Your task to perform on an android device: check google app version Image 0: 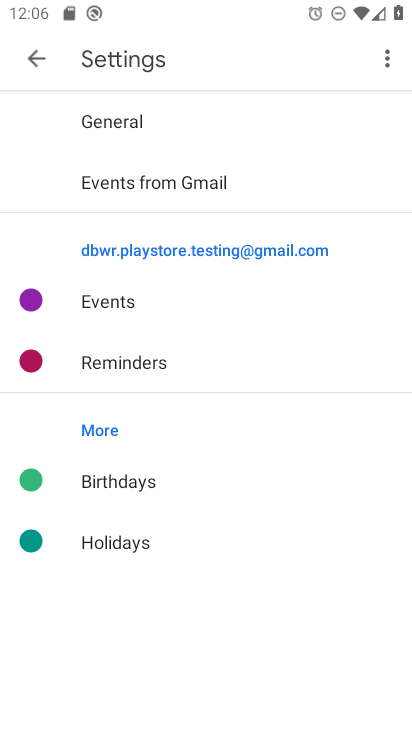
Step 0: press home button
Your task to perform on an android device: check google app version Image 1: 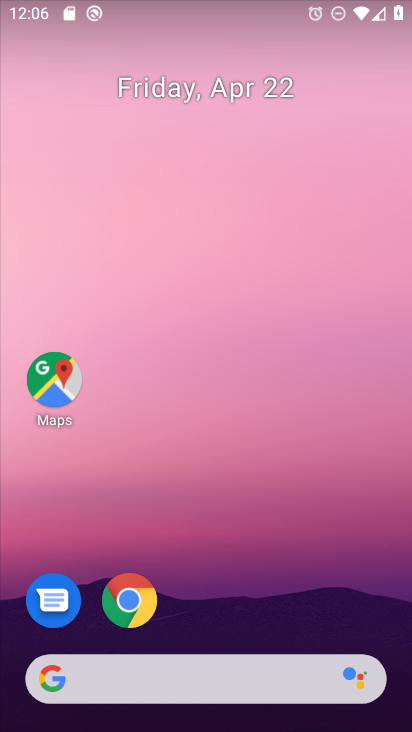
Step 1: drag from (225, 603) to (206, 39)
Your task to perform on an android device: check google app version Image 2: 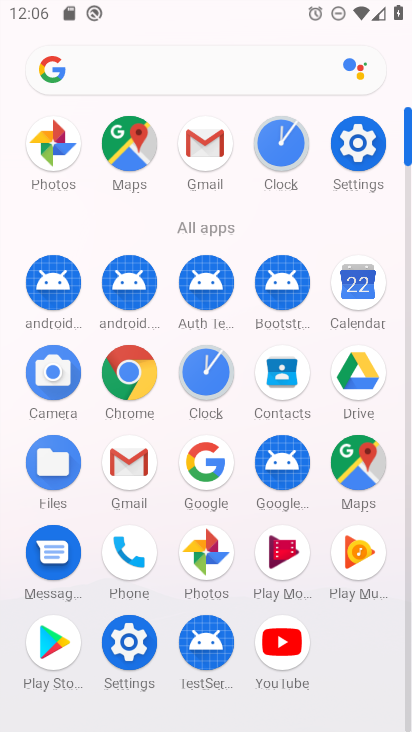
Step 2: click (214, 462)
Your task to perform on an android device: check google app version Image 3: 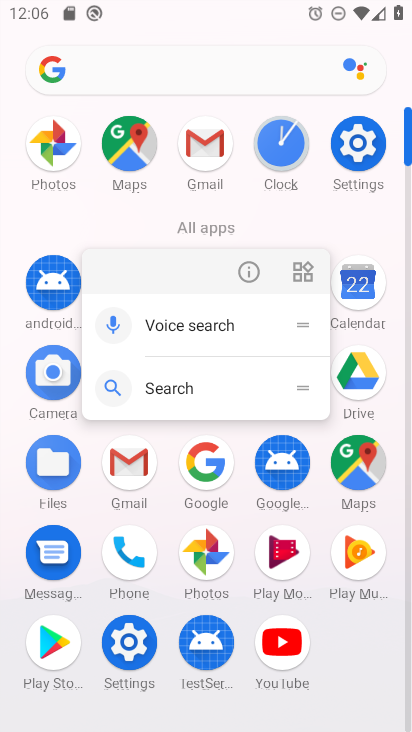
Step 3: click (248, 272)
Your task to perform on an android device: check google app version Image 4: 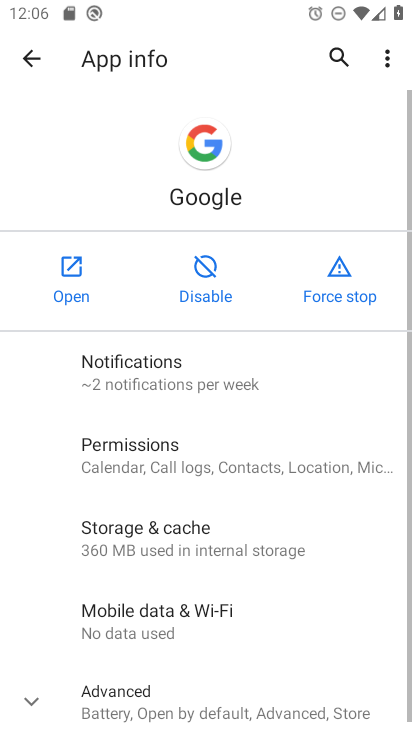
Step 4: drag from (209, 500) to (229, 372)
Your task to perform on an android device: check google app version Image 5: 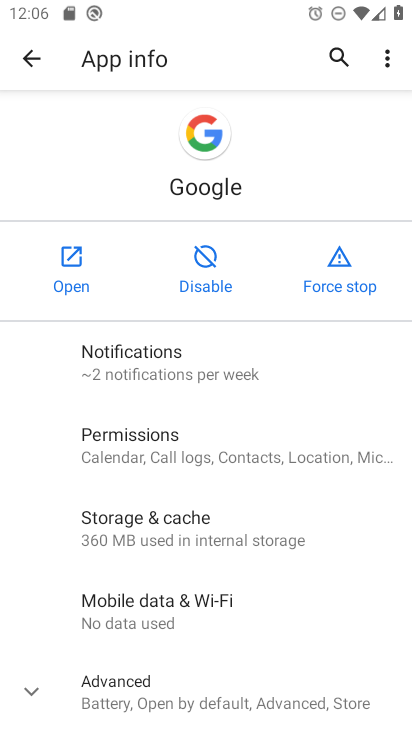
Step 5: drag from (206, 627) to (225, 485)
Your task to perform on an android device: check google app version Image 6: 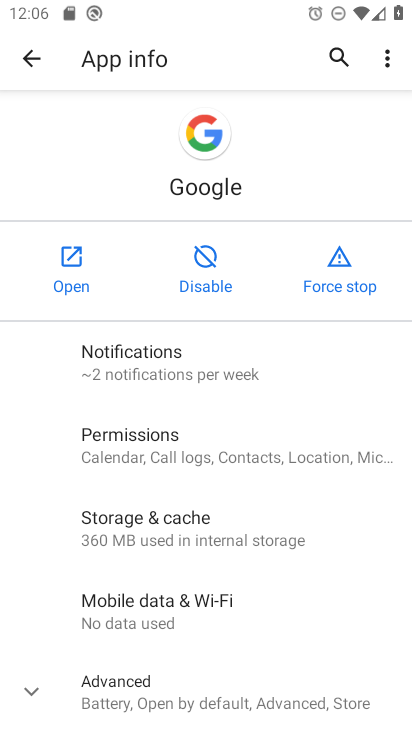
Step 6: click (208, 697)
Your task to perform on an android device: check google app version Image 7: 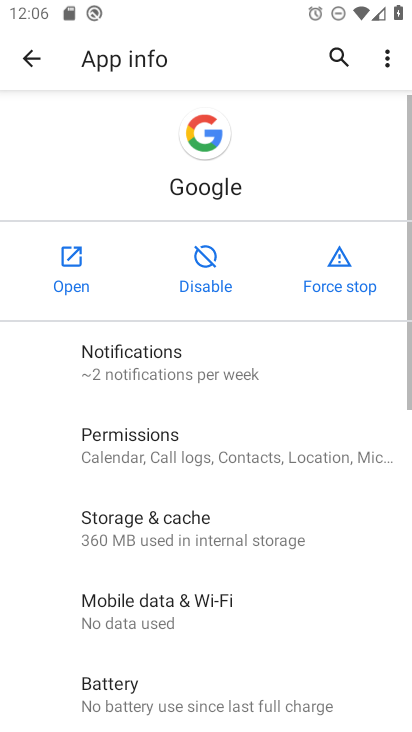
Step 7: task complete